Your task to perform on an android device: What's the weather going to be this weekend? Image 0: 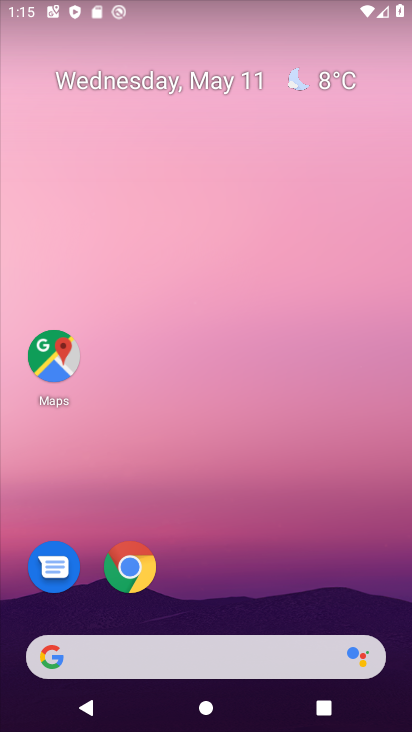
Step 0: click (333, 85)
Your task to perform on an android device: What's the weather going to be this weekend? Image 1: 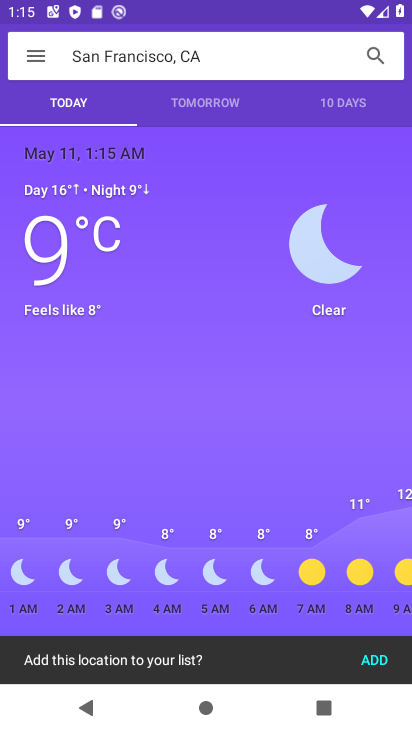
Step 1: click (317, 105)
Your task to perform on an android device: What's the weather going to be this weekend? Image 2: 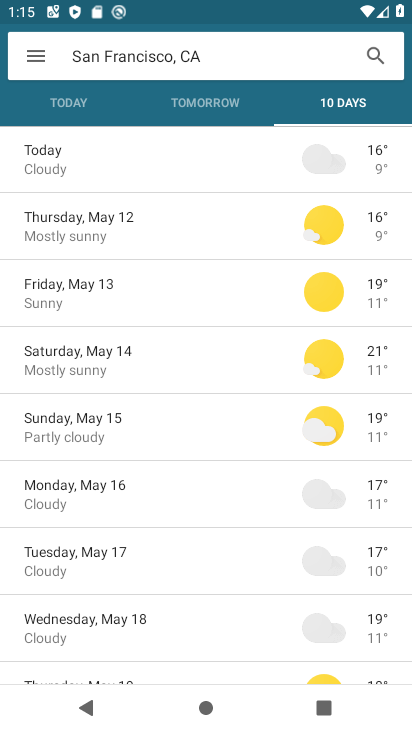
Step 2: task complete